Your task to perform on an android device: Open calendar and show me the fourth week of next month Image 0: 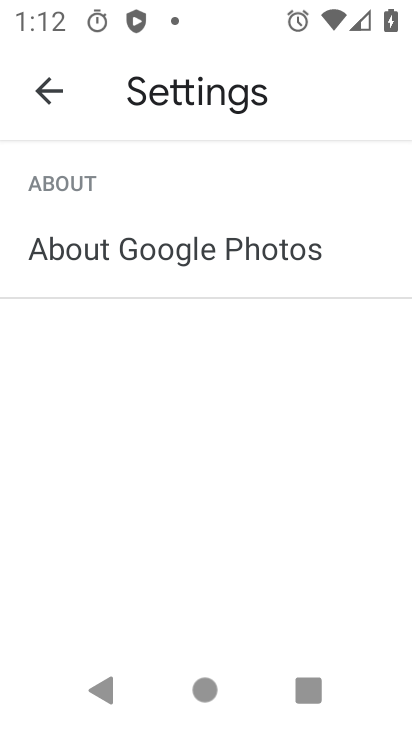
Step 0: press home button
Your task to perform on an android device: Open calendar and show me the fourth week of next month Image 1: 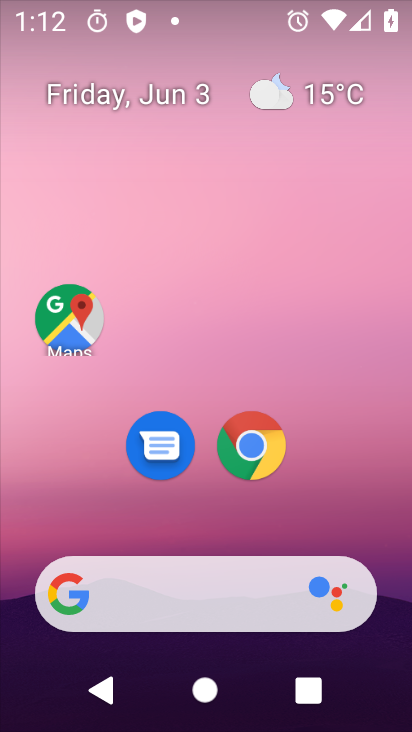
Step 1: click (164, 92)
Your task to perform on an android device: Open calendar and show me the fourth week of next month Image 2: 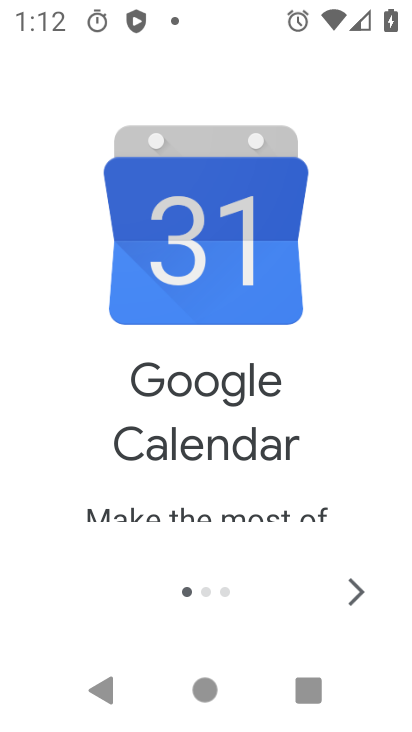
Step 2: click (372, 597)
Your task to perform on an android device: Open calendar and show me the fourth week of next month Image 3: 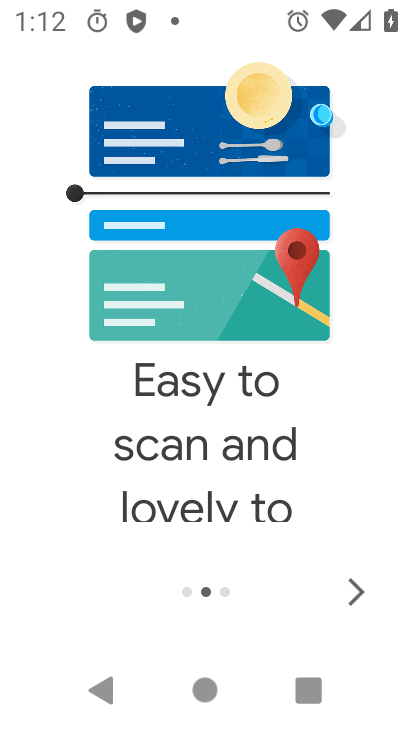
Step 3: click (372, 597)
Your task to perform on an android device: Open calendar and show me the fourth week of next month Image 4: 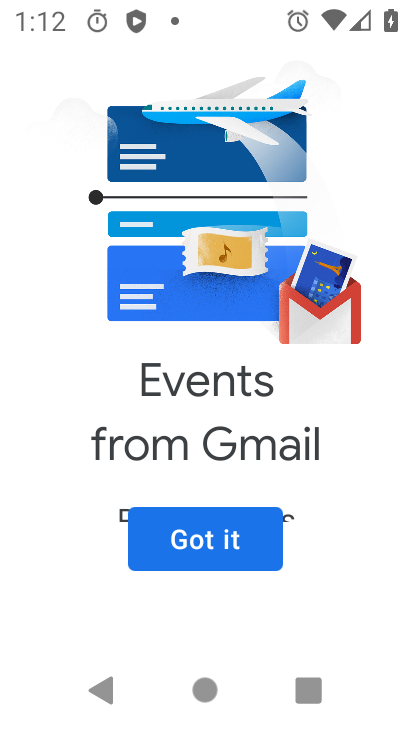
Step 4: click (222, 552)
Your task to perform on an android device: Open calendar and show me the fourth week of next month Image 5: 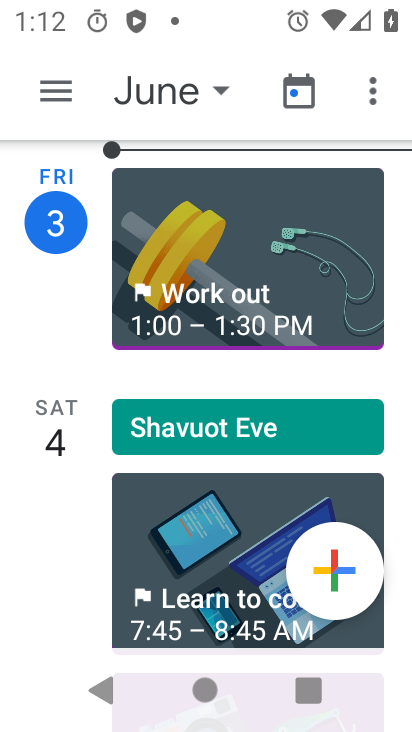
Step 5: click (196, 93)
Your task to perform on an android device: Open calendar and show me the fourth week of next month Image 6: 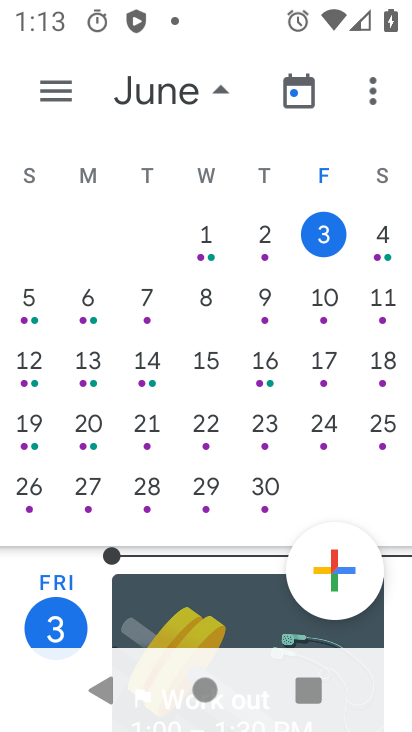
Step 6: drag from (372, 513) to (34, 504)
Your task to perform on an android device: Open calendar and show me the fourth week of next month Image 7: 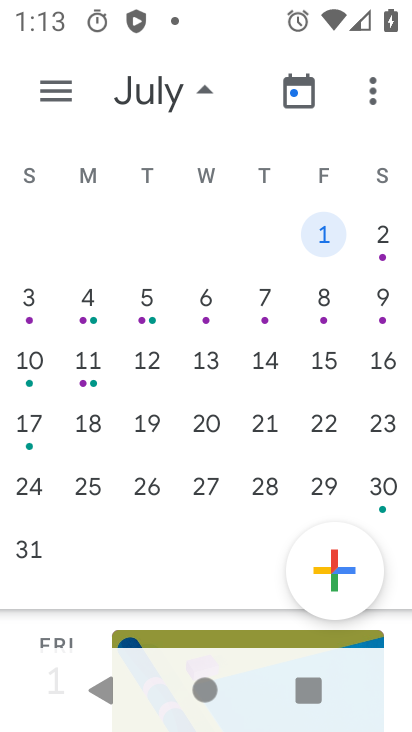
Step 7: click (319, 436)
Your task to perform on an android device: Open calendar and show me the fourth week of next month Image 8: 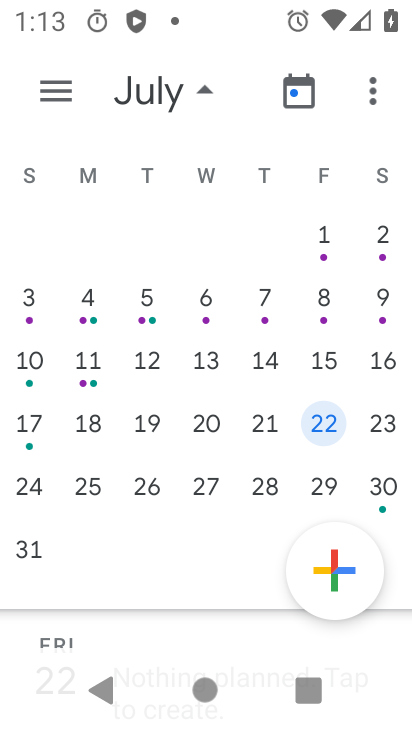
Step 8: task complete